Your task to perform on an android device: Go to accessibility settings Image 0: 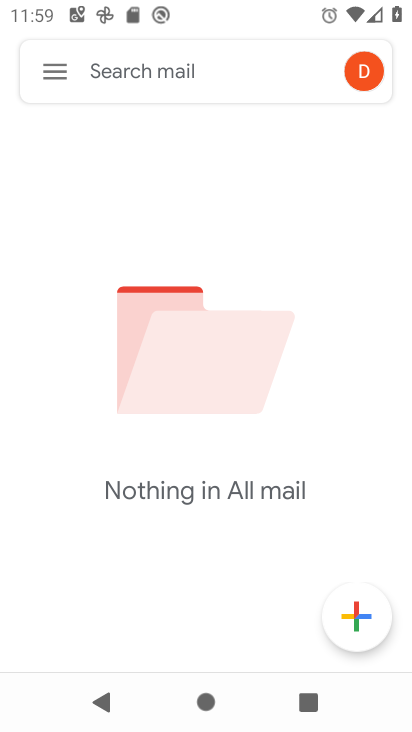
Step 0: press home button
Your task to perform on an android device: Go to accessibility settings Image 1: 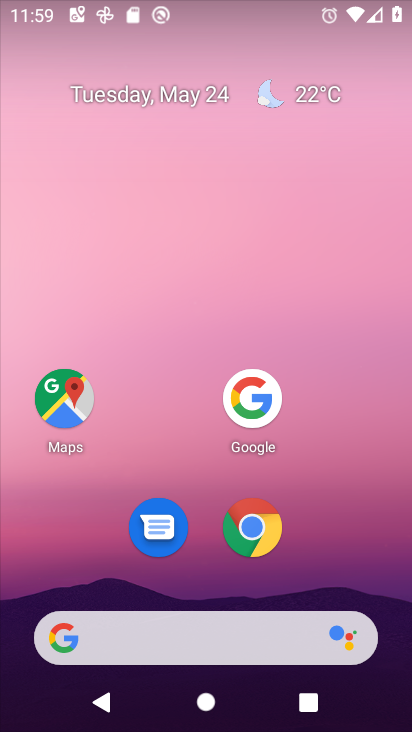
Step 1: drag from (214, 621) to (395, 68)
Your task to perform on an android device: Go to accessibility settings Image 2: 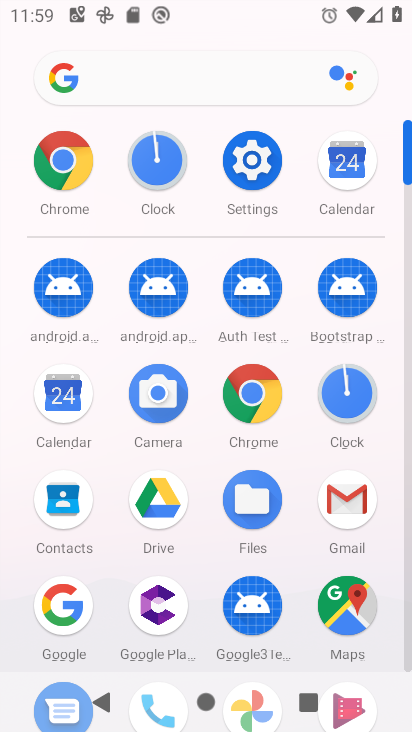
Step 2: click (259, 167)
Your task to perform on an android device: Go to accessibility settings Image 3: 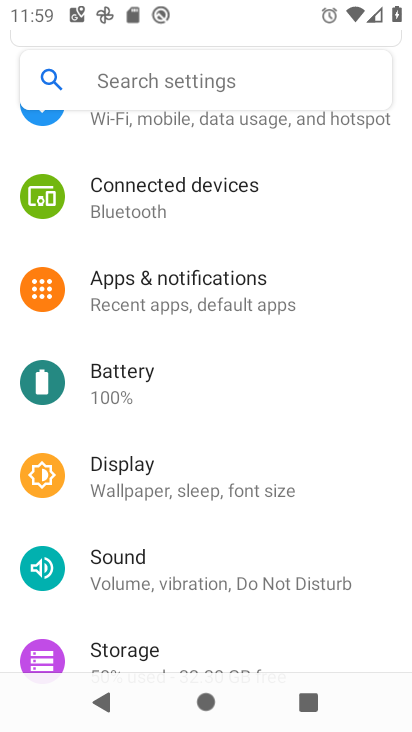
Step 3: drag from (285, 578) to (383, 48)
Your task to perform on an android device: Go to accessibility settings Image 4: 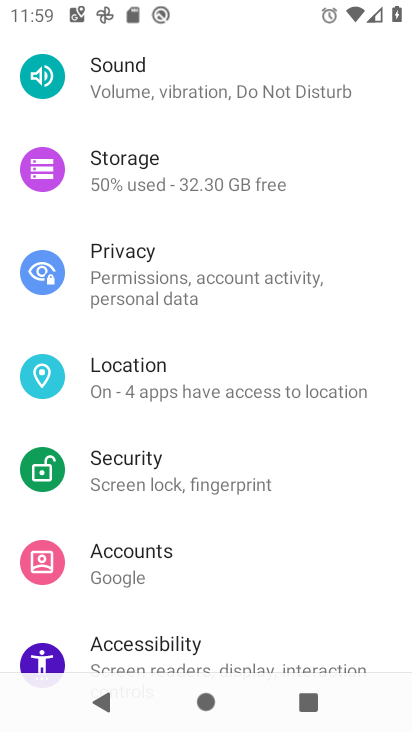
Step 4: drag from (252, 564) to (375, 248)
Your task to perform on an android device: Go to accessibility settings Image 5: 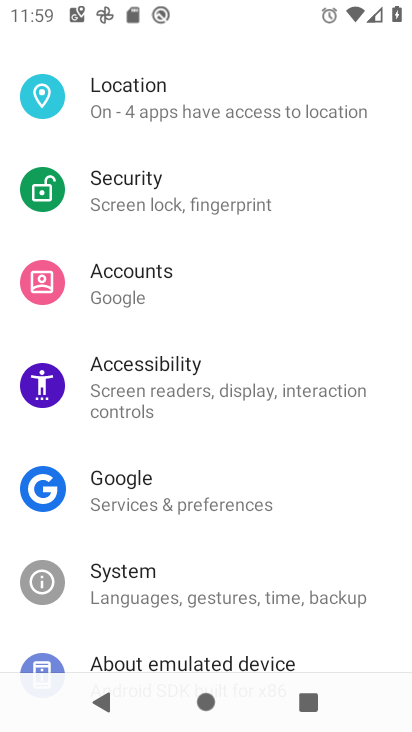
Step 5: click (209, 376)
Your task to perform on an android device: Go to accessibility settings Image 6: 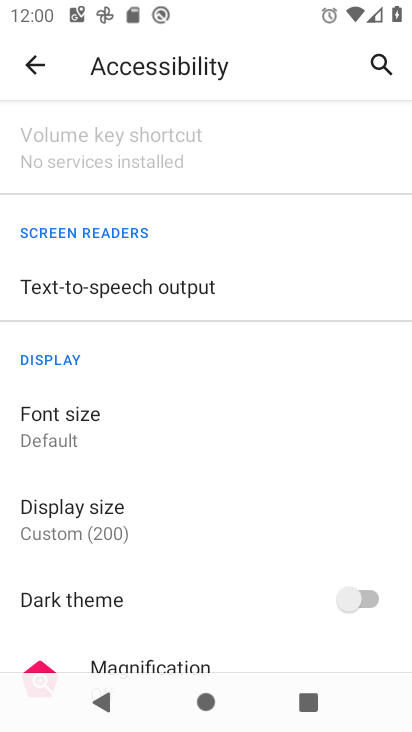
Step 6: task complete